Your task to perform on an android device: turn on showing notifications on the lock screen Image 0: 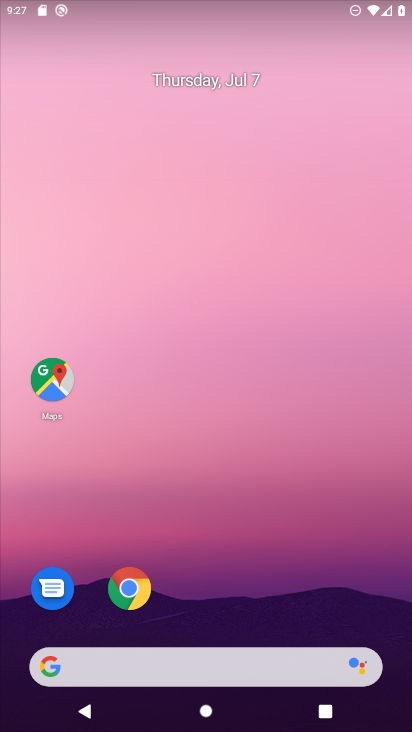
Step 0: drag from (289, 13) to (297, 608)
Your task to perform on an android device: turn on showing notifications on the lock screen Image 1: 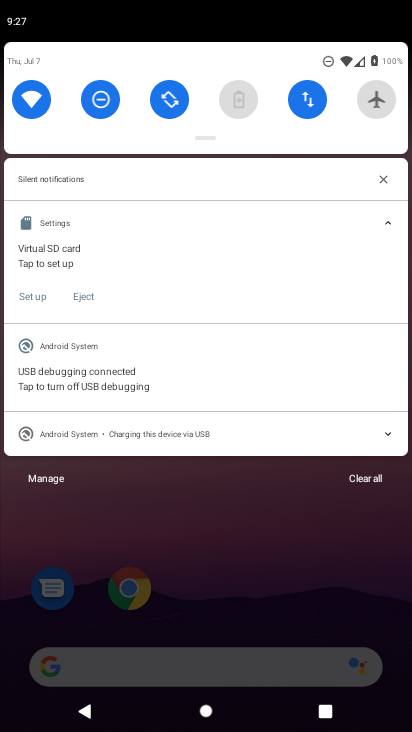
Step 1: drag from (228, 54) to (280, 510)
Your task to perform on an android device: turn on showing notifications on the lock screen Image 2: 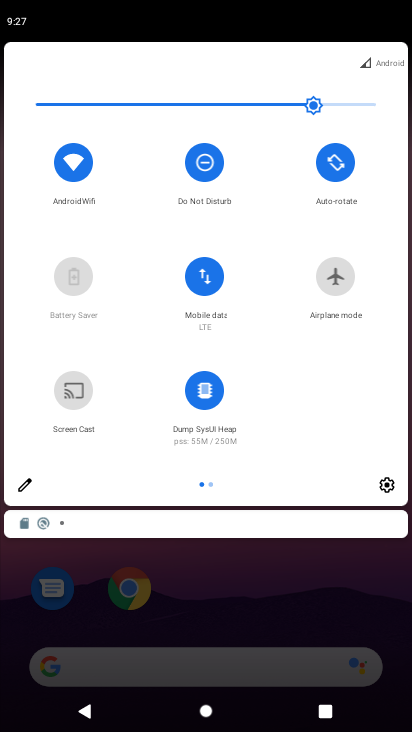
Step 2: click (385, 477)
Your task to perform on an android device: turn on showing notifications on the lock screen Image 3: 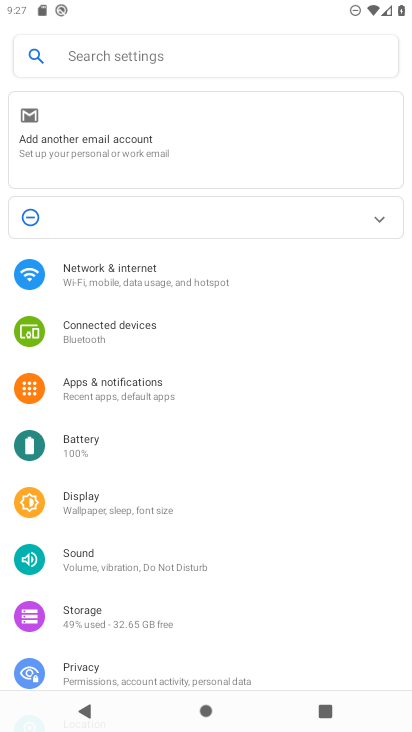
Step 3: click (205, 396)
Your task to perform on an android device: turn on showing notifications on the lock screen Image 4: 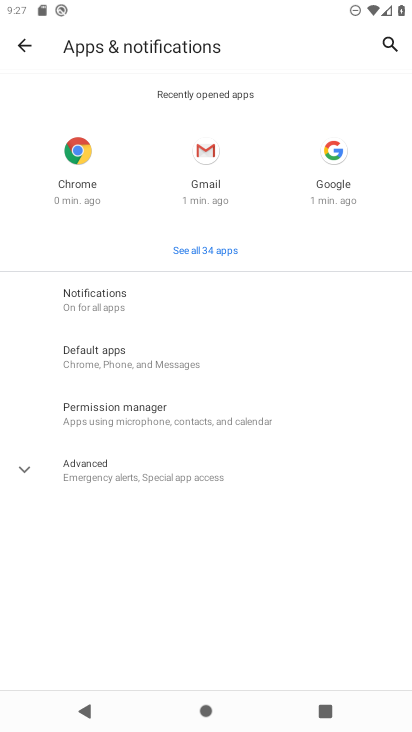
Step 4: click (172, 297)
Your task to perform on an android device: turn on showing notifications on the lock screen Image 5: 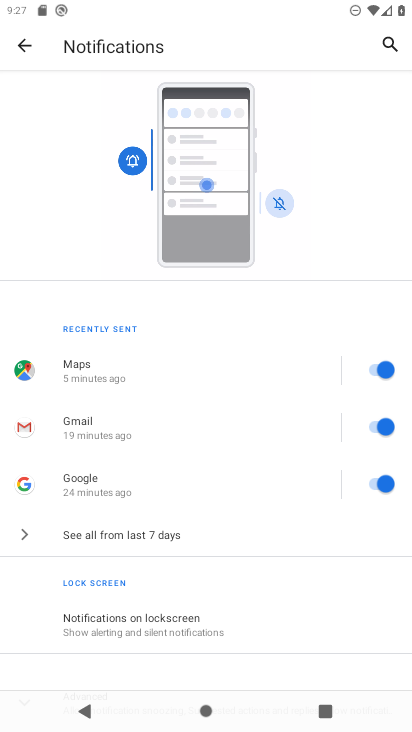
Step 5: click (217, 626)
Your task to perform on an android device: turn on showing notifications on the lock screen Image 6: 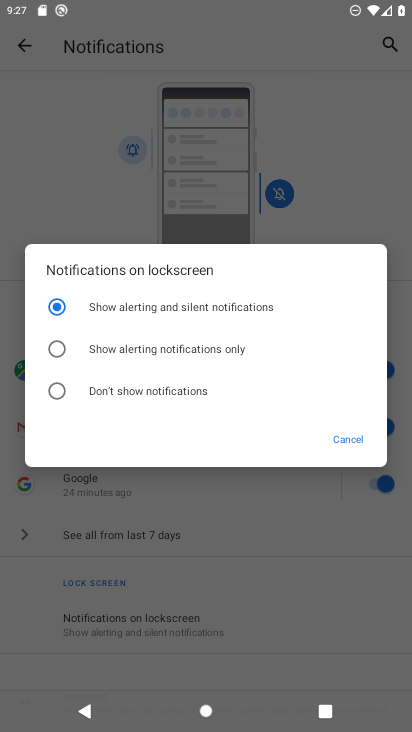
Step 6: task complete